Your task to perform on an android device: Open Amazon Image 0: 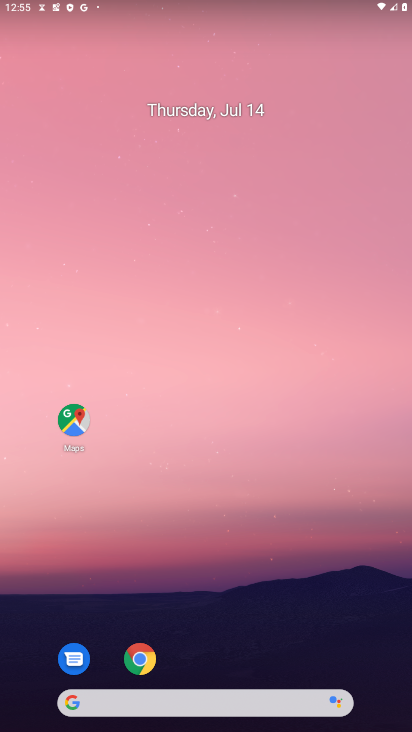
Step 0: click (149, 711)
Your task to perform on an android device: Open Amazon Image 1: 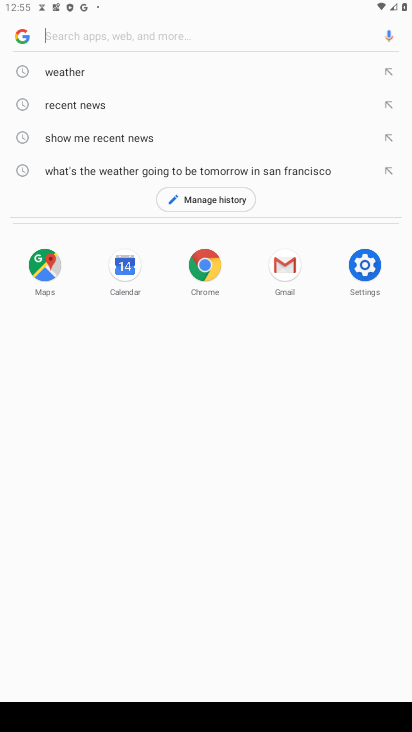
Step 1: type " Amazon"
Your task to perform on an android device: Open Amazon Image 2: 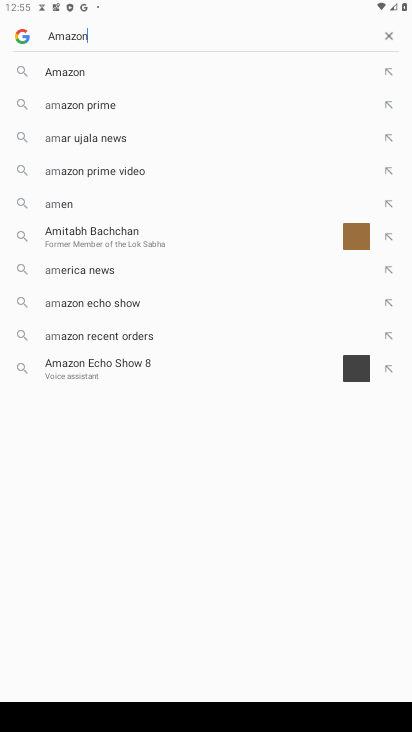
Step 2: type ""
Your task to perform on an android device: Open Amazon Image 3: 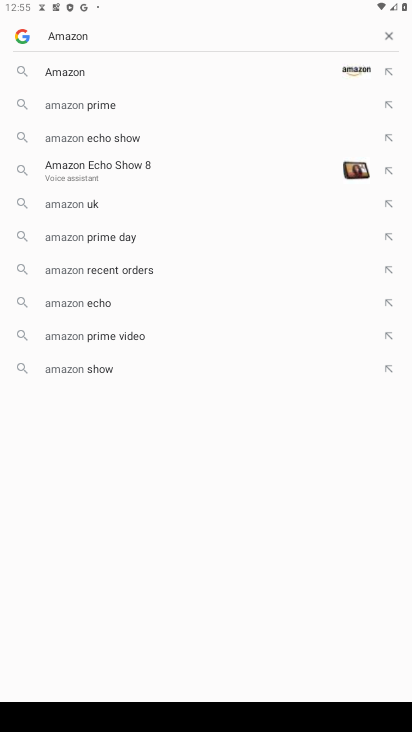
Step 3: click (83, 83)
Your task to perform on an android device: Open Amazon Image 4: 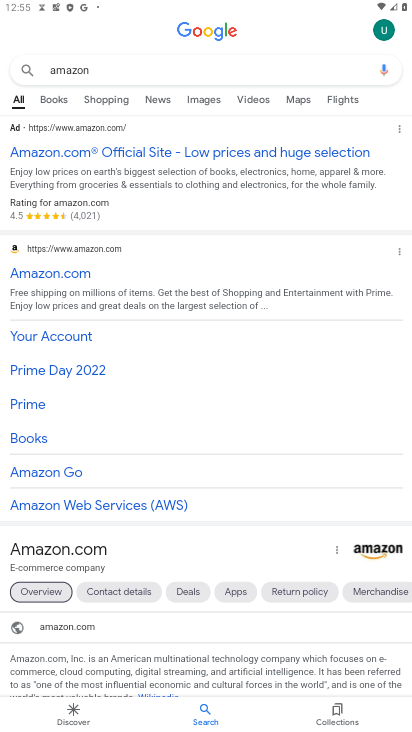
Step 4: task complete